Your task to perform on an android device: turn on showing notifications on the lock screen Image 0: 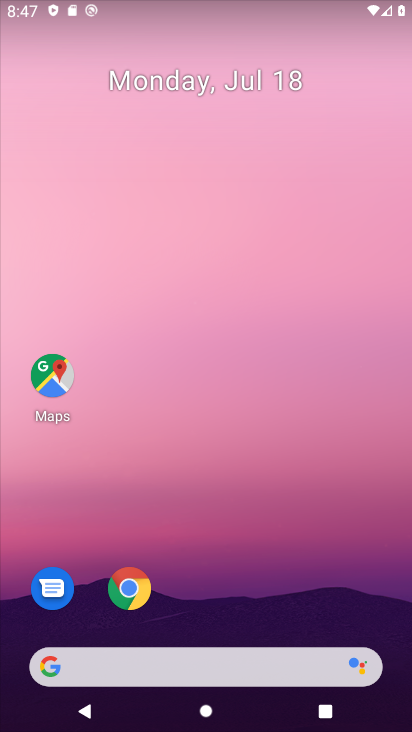
Step 0: press home button
Your task to perform on an android device: turn on showing notifications on the lock screen Image 1: 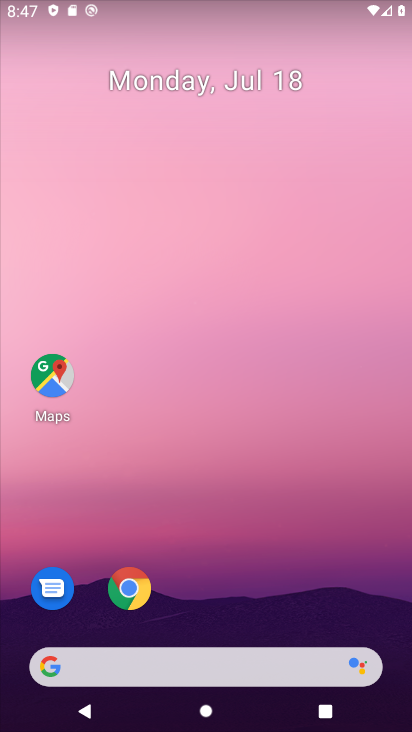
Step 1: drag from (273, 562) to (249, 1)
Your task to perform on an android device: turn on showing notifications on the lock screen Image 2: 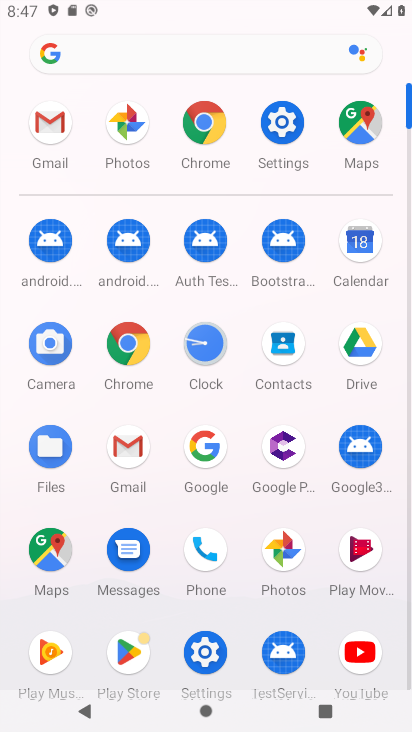
Step 2: click (201, 669)
Your task to perform on an android device: turn on showing notifications on the lock screen Image 3: 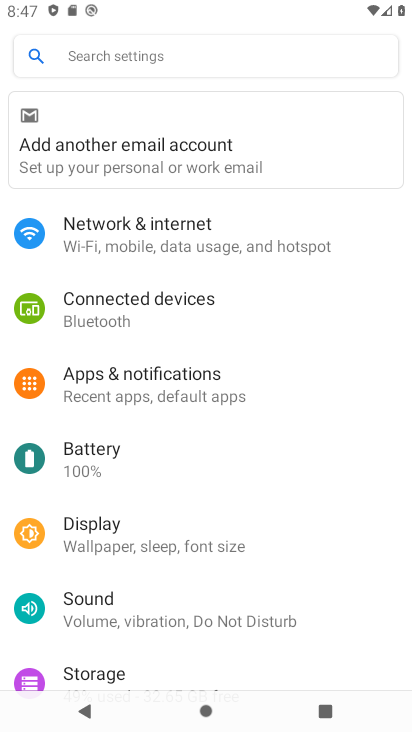
Step 3: click (35, 396)
Your task to perform on an android device: turn on showing notifications on the lock screen Image 4: 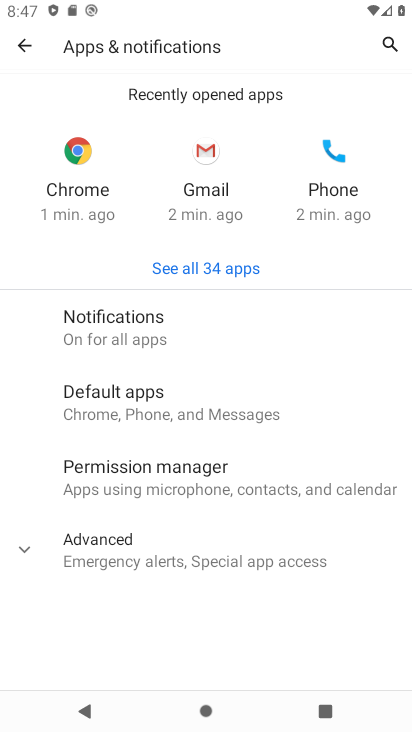
Step 4: click (50, 351)
Your task to perform on an android device: turn on showing notifications on the lock screen Image 5: 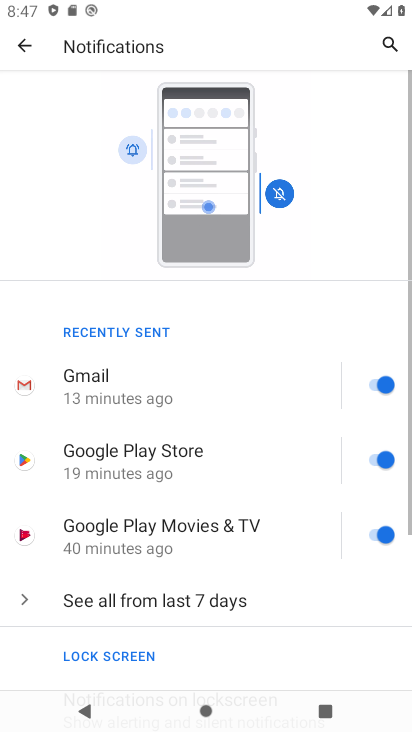
Step 5: drag from (91, 652) to (79, 178)
Your task to perform on an android device: turn on showing notifications on the lock screen Image 6: 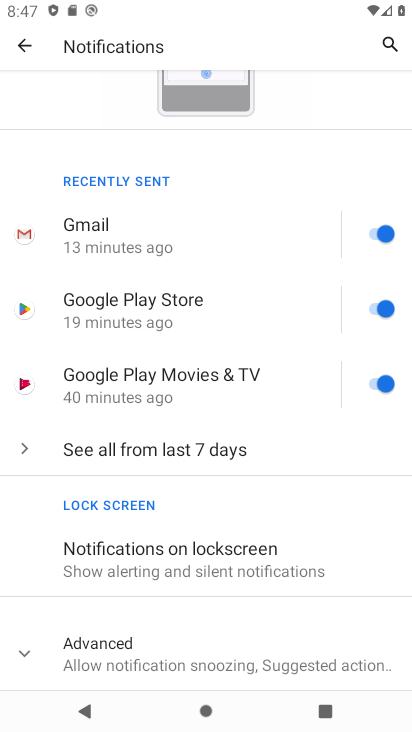
Step 6: click (115, 575)
Your task to perform on an android device: turn on showing notifications on the lock screen Image 7: 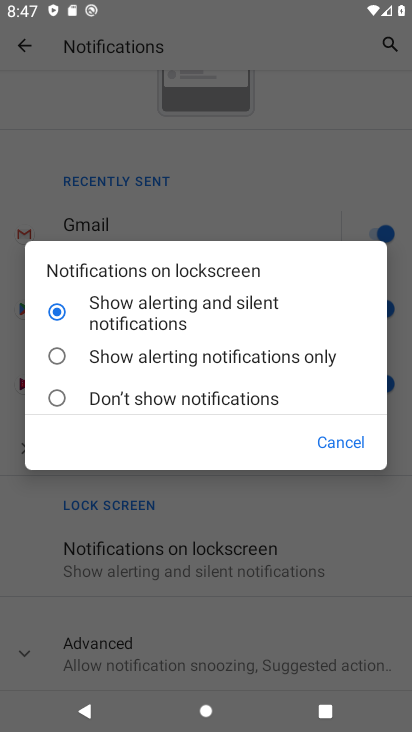
Step 7: click (200, 317)
Your task to perform on an android device: turn on showing notifications on the lock screen Image 8: 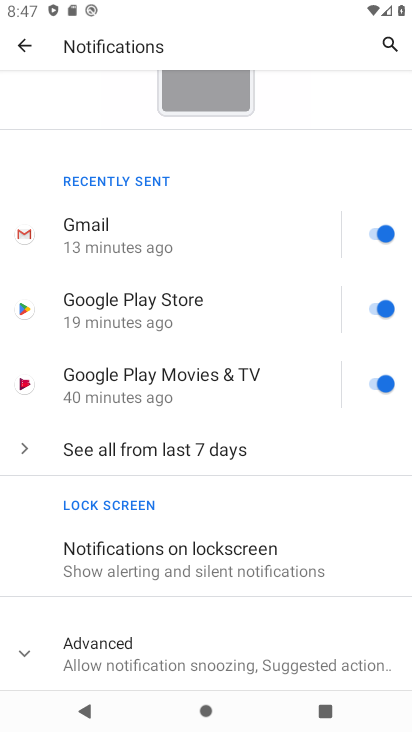
Step 8: task complete